Your task to perform on an android device: open device folders in google photos Image 0: 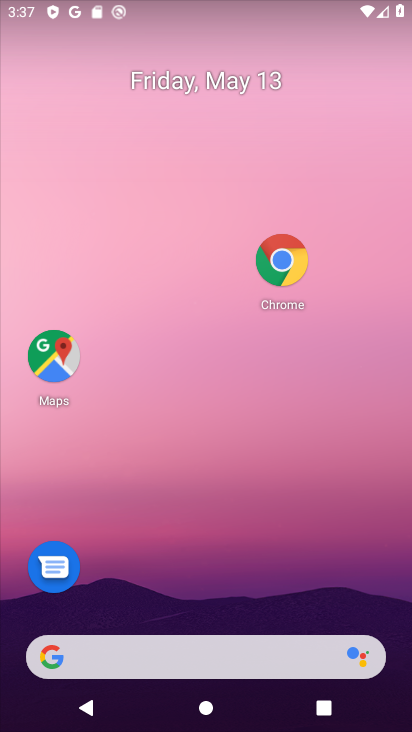
Step 0: drag from (283, 519) to (162, 122)
Your task to perform on an android device: open device folders in google photos Image 1: 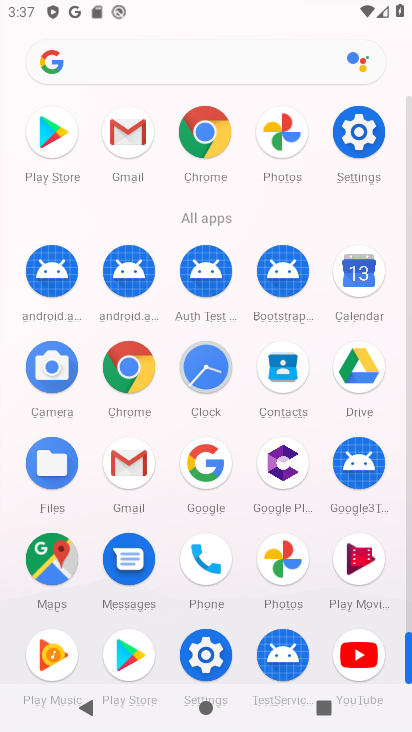
Step 1: click (369, 661)
Your task to perform on an android device: open device folders in google photos Image 2: 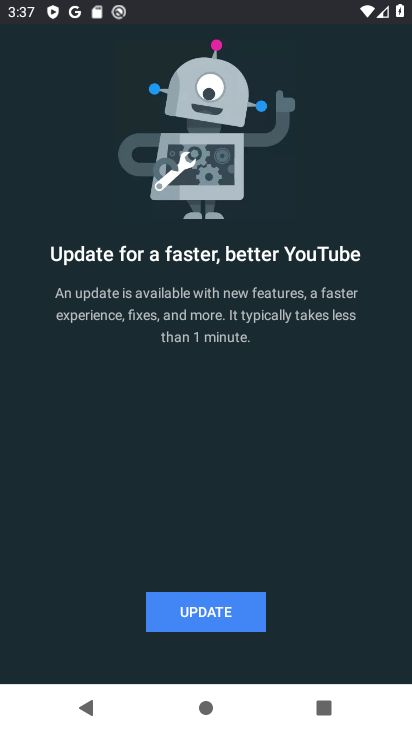
Step 2: click (204, 602)
Your task to perform on an android device: open device folders in google photos Image 3: 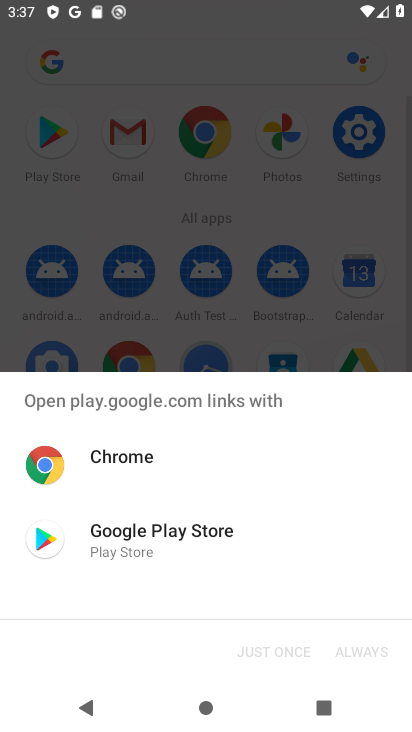
Step 3: press back button
Your task to perform on an android device: open device folders in google photos Image 4: 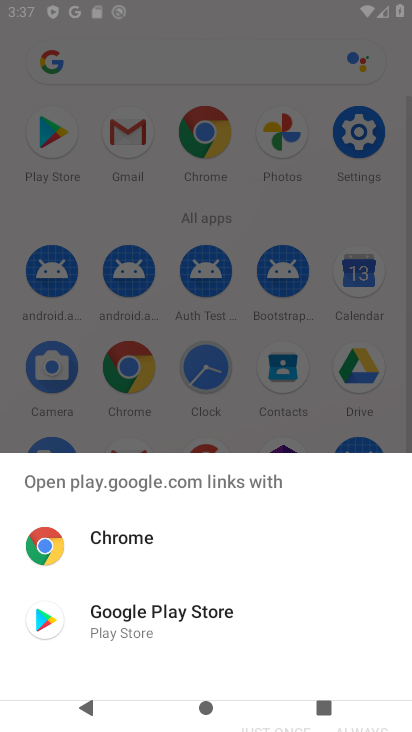
Step 4: press back button
Your task to perform on an android device: open device folders in google photos Image 5: 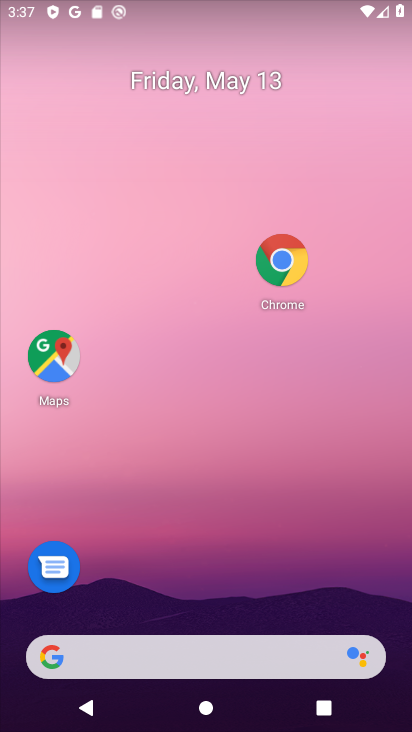
Step 5: drag from (261, 511) to (167, 35)
Your task to perform on an android device: open device folders in google photos Image 6: 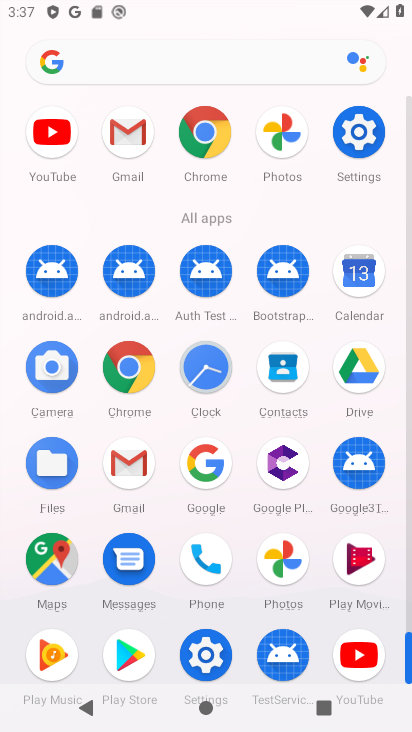
Step 6: click (278, 132)
Your task to perform on an android device: open device folders in google photos Image 7: 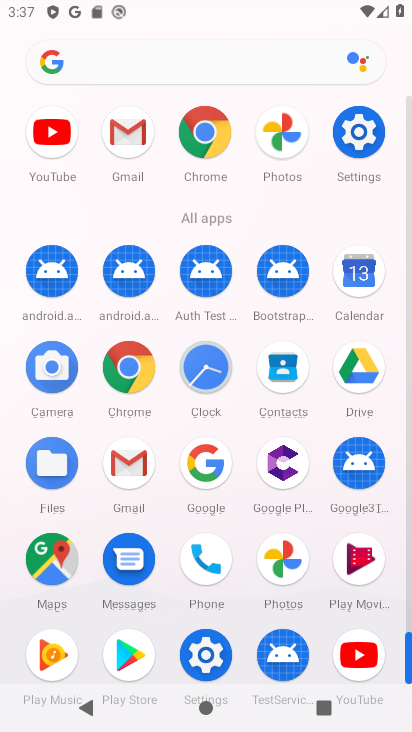
Step 7: click (278, 132)
Your task to perform on an android device: open device folders in google photos Image 8: 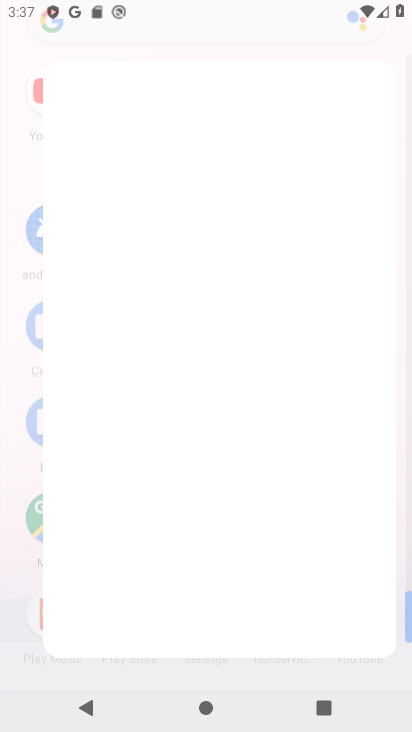
Step 8: click (279, 131)
Your task to perform on an android device: open device folders in google photos Image 9: 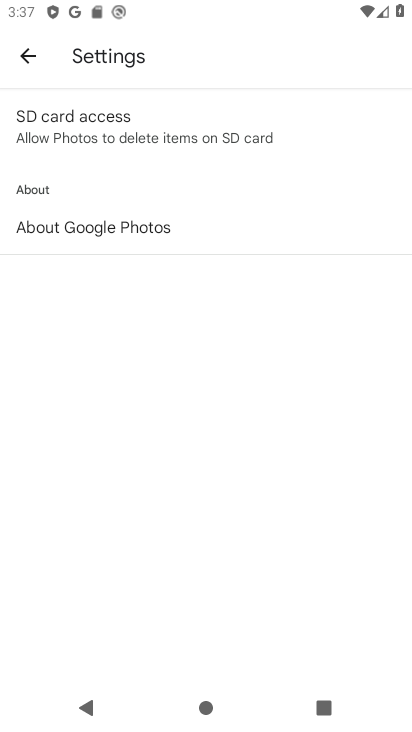
Step 9: click (27, 48)
Your task to perform on an android device: open device folders in google photos Image 10: 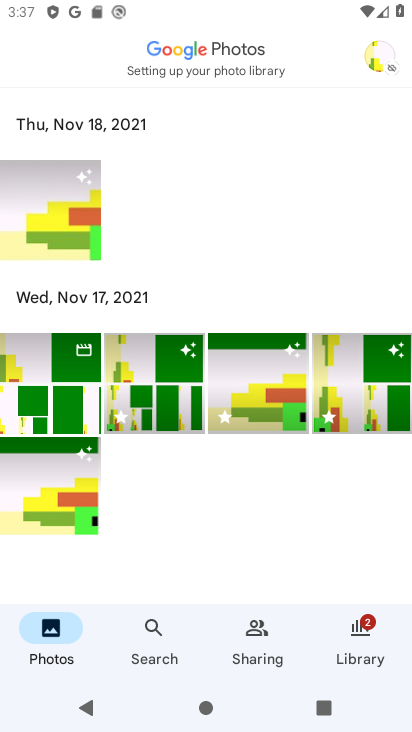
Step 10: task complete